Your task to perform on an android device: Empty the shopping cart on bestbuy. Search for "jbl flip 4" on bestbuy, select the first entry, and add it to the cart. Image 0: 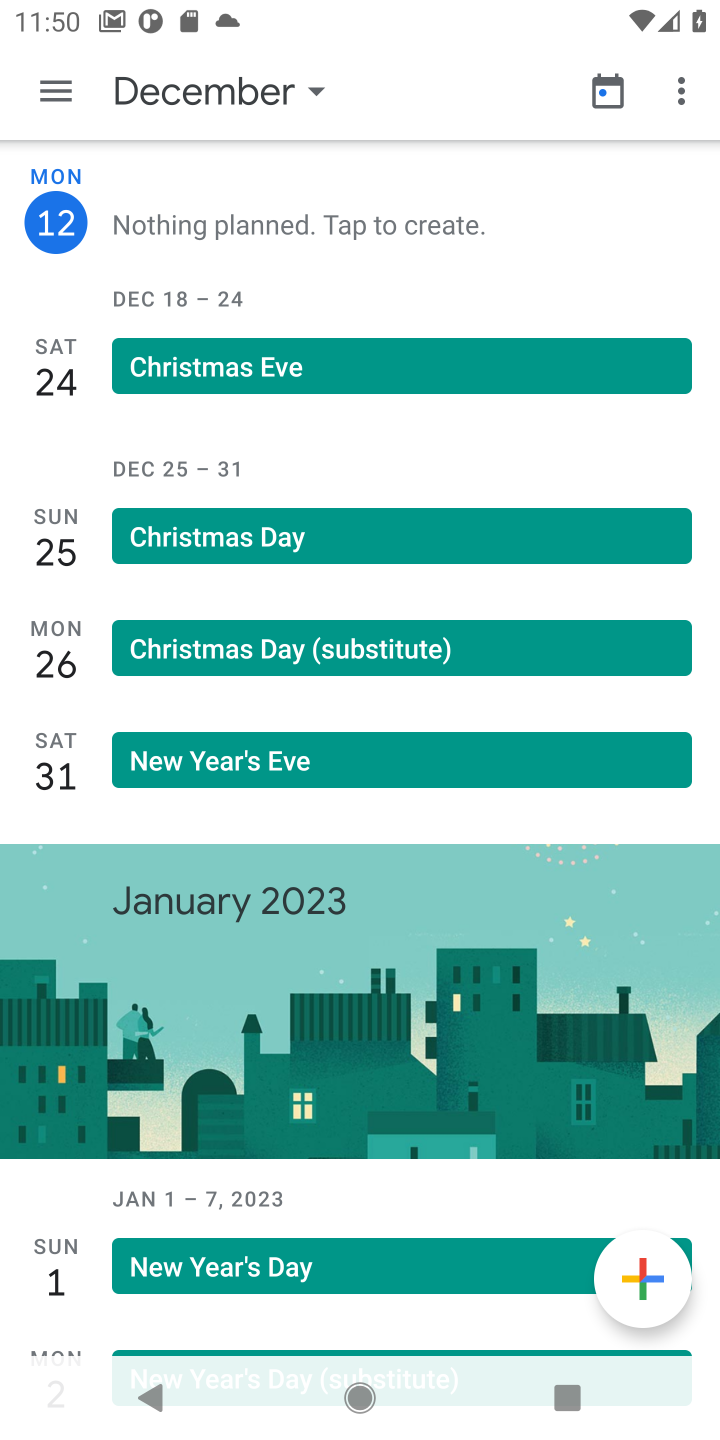
Step 0: press home button
Your task to perform on an android device: Empty the shopping cart on bestbuy. Search for "jbl flip 4" on bestbuy, select the first entry, and add it to the cart. Image 1: 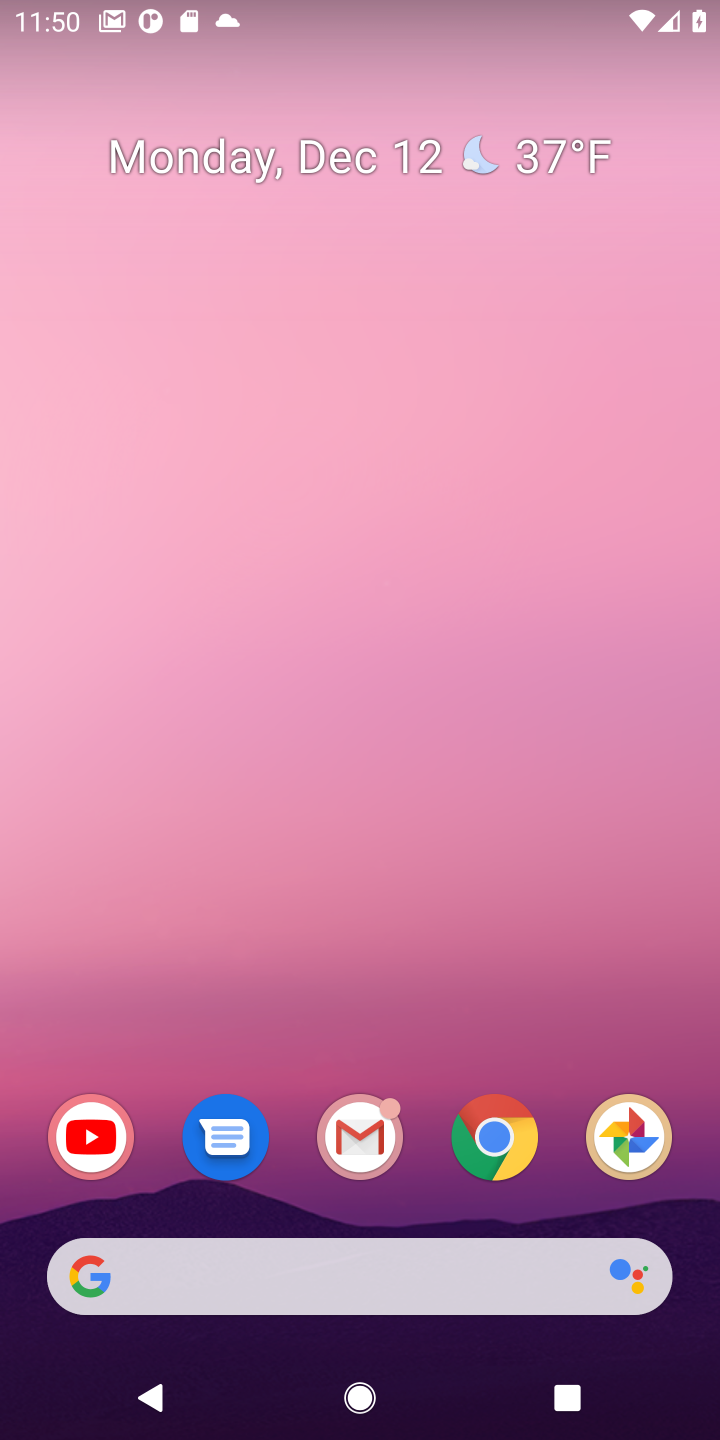
Step 1: click (495, 1259)
Your task to perform on an android device: Empty the shopping cart on bestbuy. Search for "jbl flip 4" on bestbuy, select the first entry, and add it to the cart. Image 2: 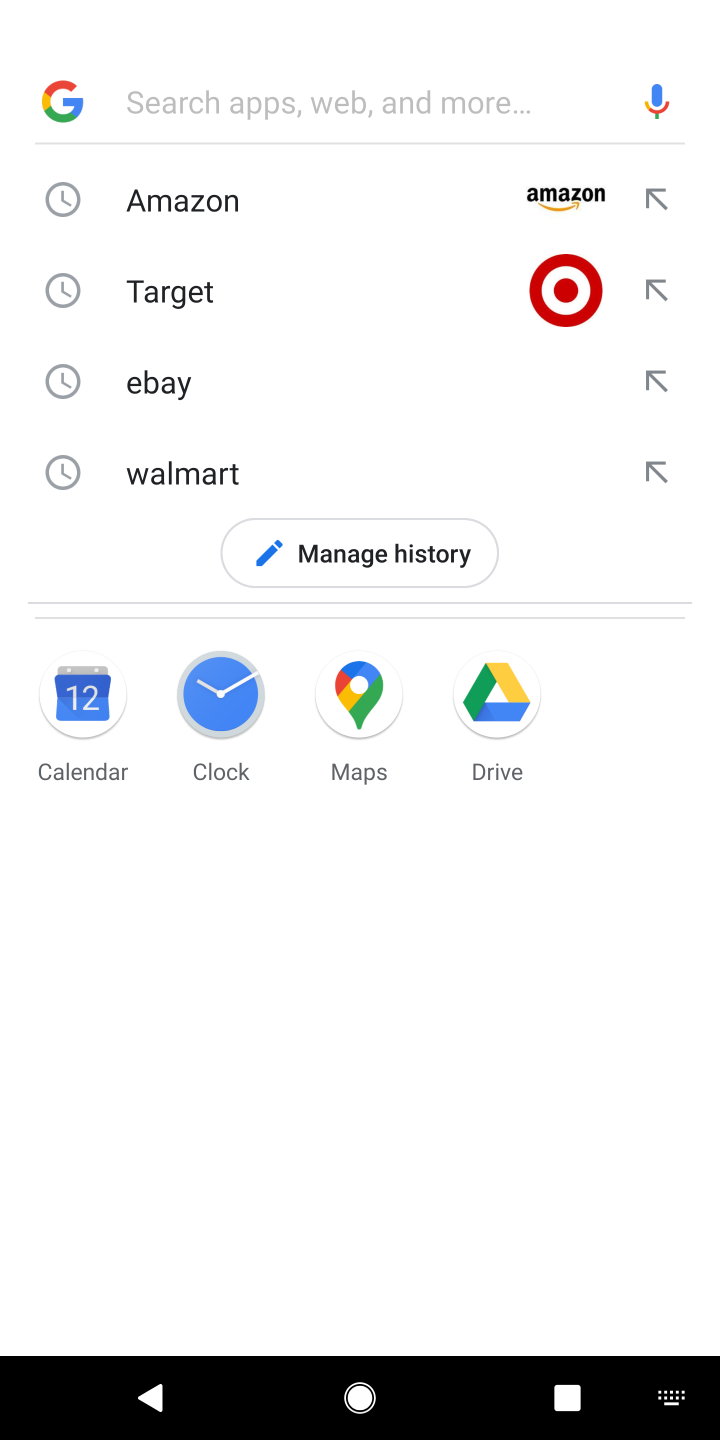
Step 2: type "bestbuy"
Your task to perform on an android device: Empty the shopping cart on bestbuy. Search for "jbl flip 4" on bestbuy, select the first entry, and add it to the cart. Image 3: 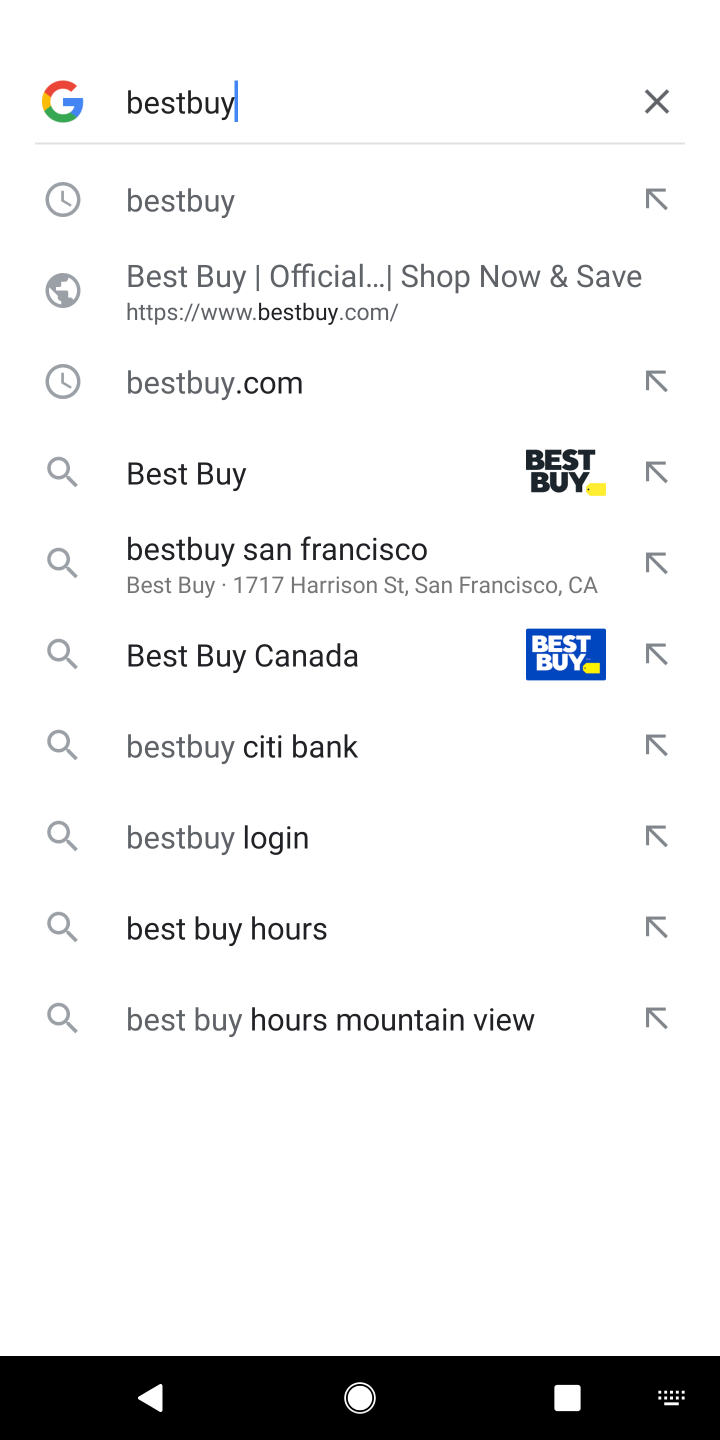
Step 3: click (249, 484)
Your task to perform on an android device: Empty the shopping cart on bestbuy. Search for "jbl flip 4" on bestbuy, select the first entry, and add it to the cart. Image 4: 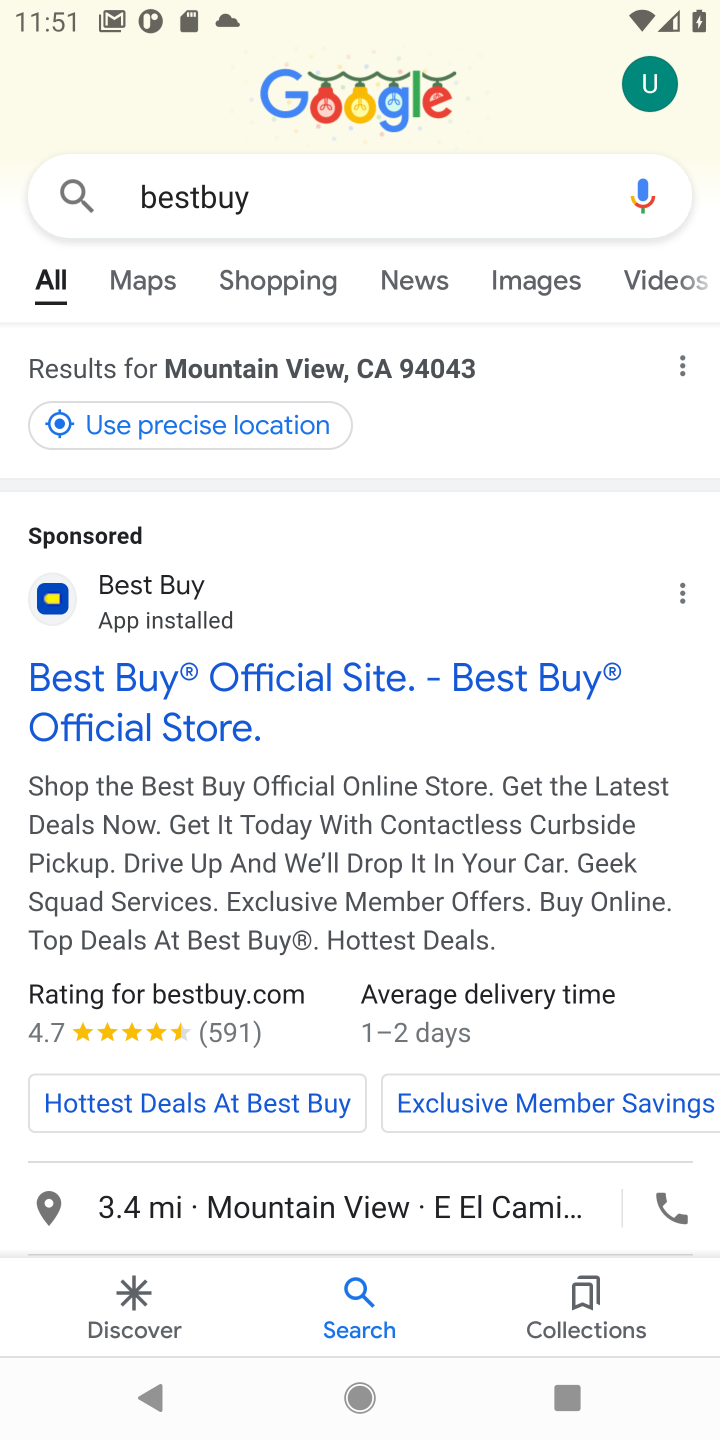
Step 4: click (122, 665)
Your task to perform on an android device: Empty the shopping cart on bestbuy. Search for "jbl flip 4" on bestbuy, select the first entry, and add it to the cart. Image 5: 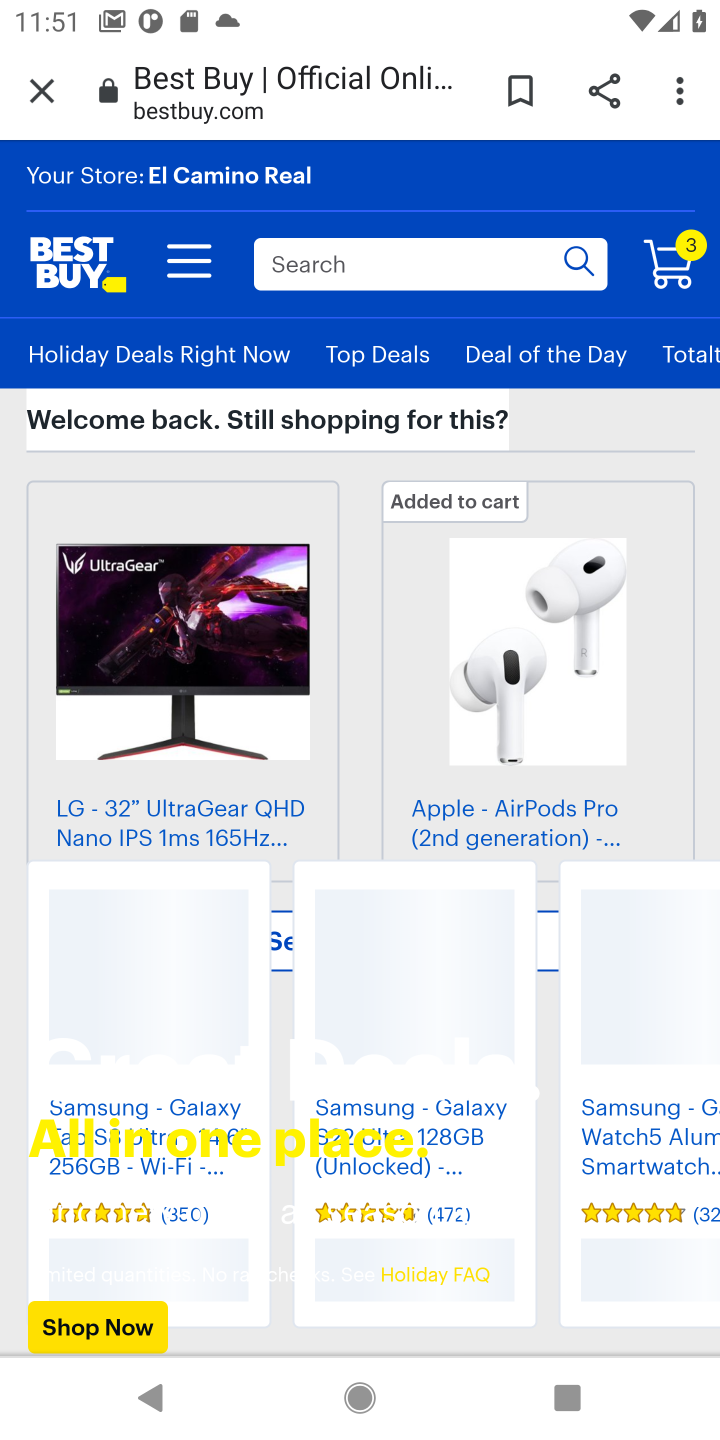
Step 5: click (411, 275)
Your task to perform on an android device: Empty the shopping cart on bestbuy. Search for "jbl flip 4" on bestbuy, select the first entry, and add it to the cart. Image 6: 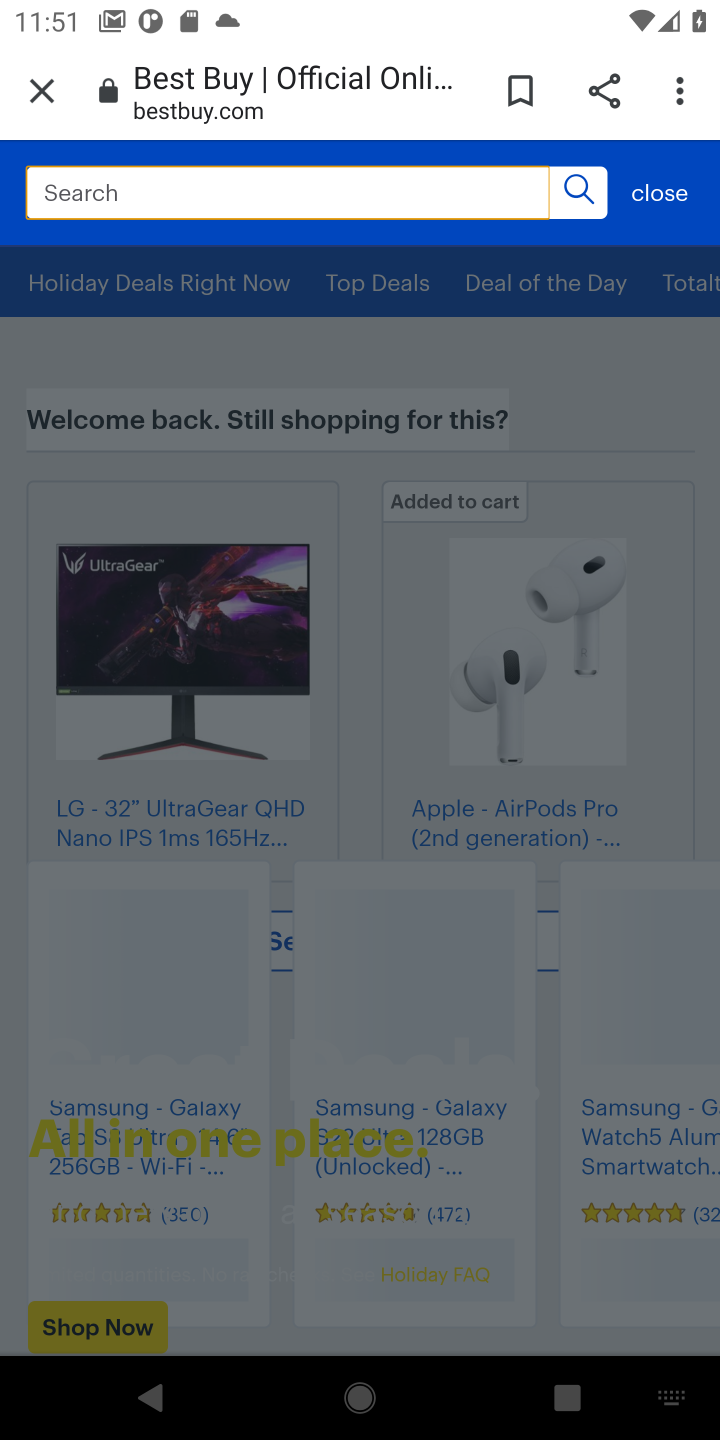
Step 6: type "jbl flip 4"
Your task to perform on an android device: Empty the shopping cart on bestbuy. Search for "jbl flip 4" on bestbuy, select the first entry, and add it to the cart. Image 7: 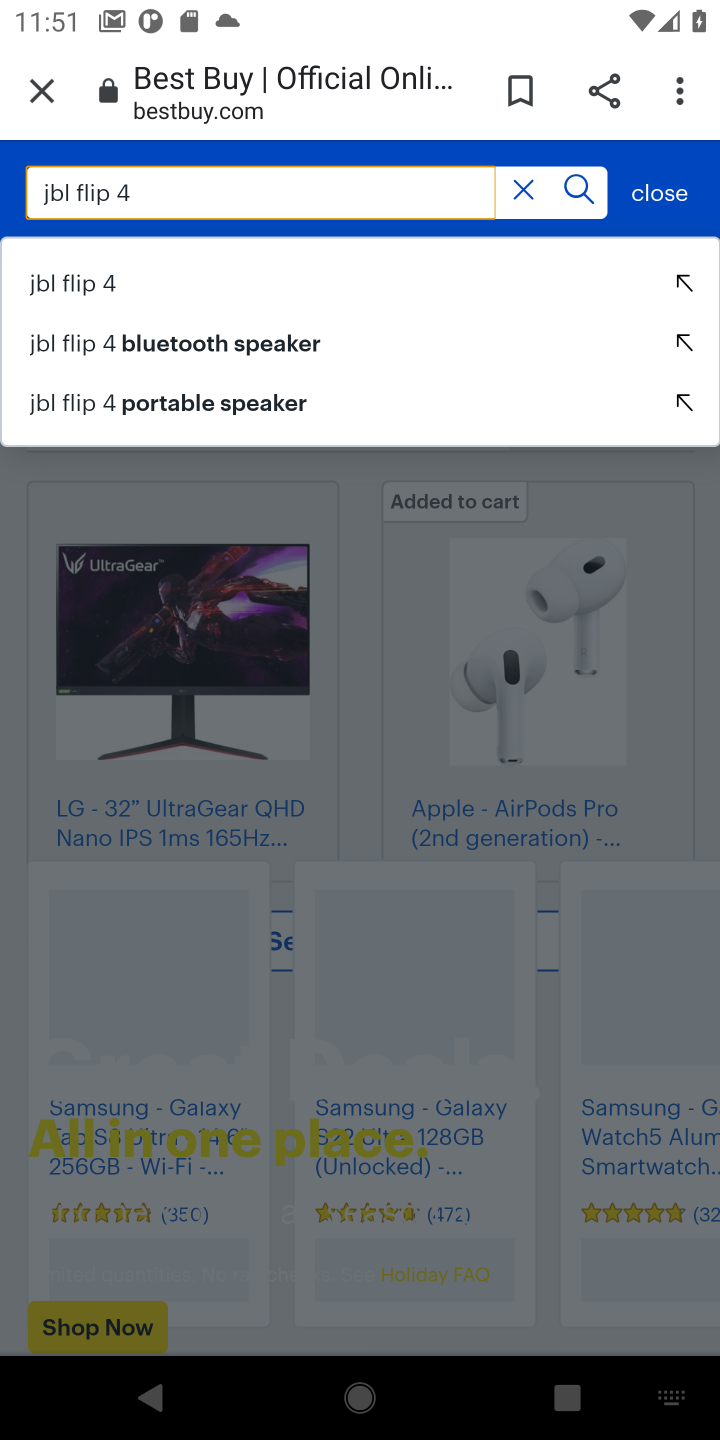
Step 7: click (235, 288)
Your task to perform on an android device: Empty the shopping cart on bestbuy. Search for "jbl flip 4" on bestbuy, select the first entry, and add it to the cart. Image 8: 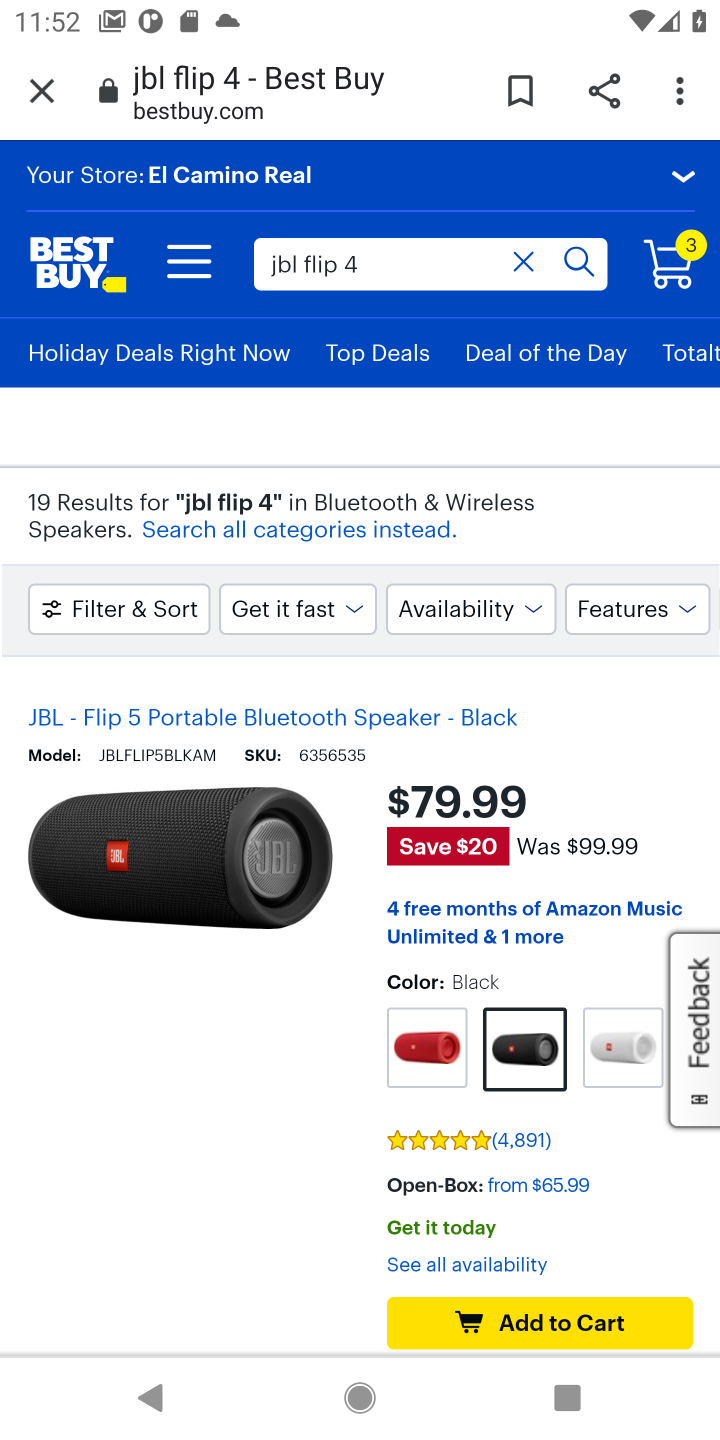
Step 8: click (509, 1329)
Your task to perform on an android device: Empty the shopping cart on bestbuy. Search for "jbl flip 4" on bestbuy, select the first entry, and add it to the cart. Image 9: 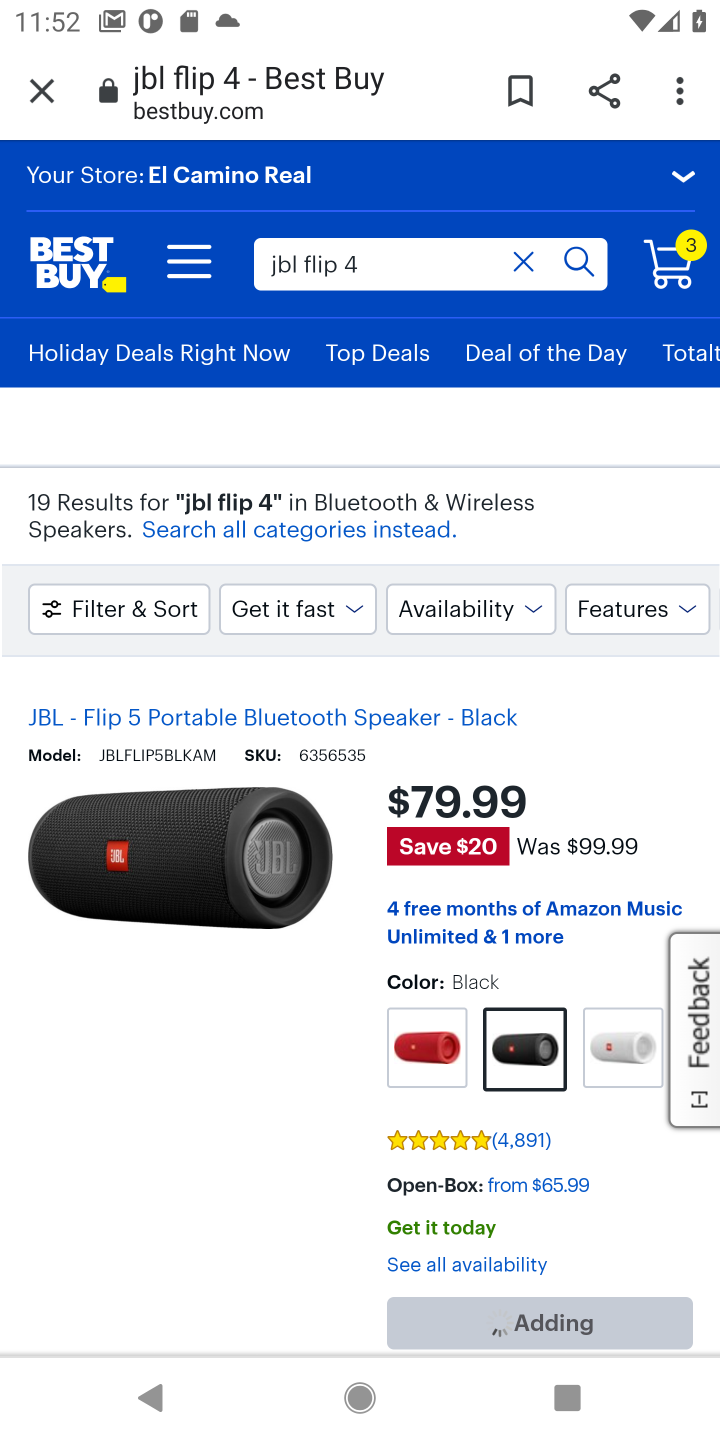
Step 9: task complete